Your task to perform on an android device: Go to network settings Image 0: 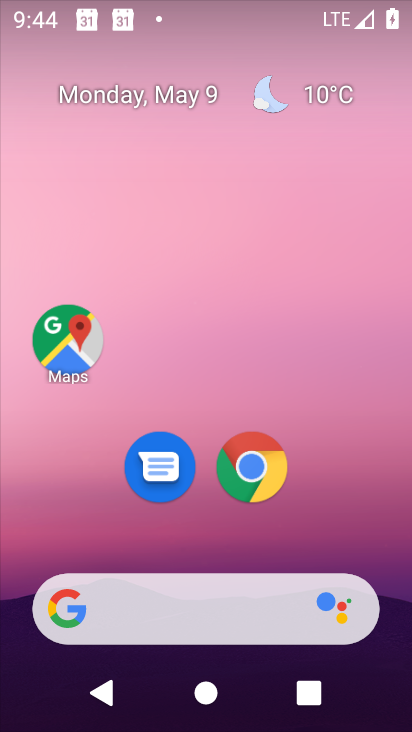
Step 0: drag from (370, 537) to (351, 3)
Your task to perform on an android device: Go to network settings Image 1: 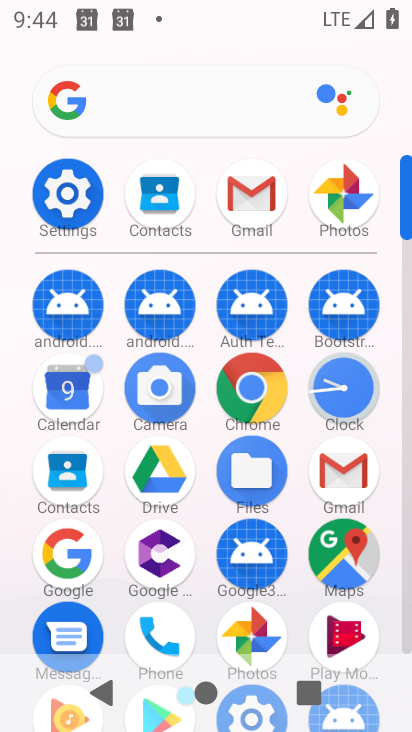
Step 1: click (61, 191)
Your task to perform on an android device: Go to network settings Image 2: 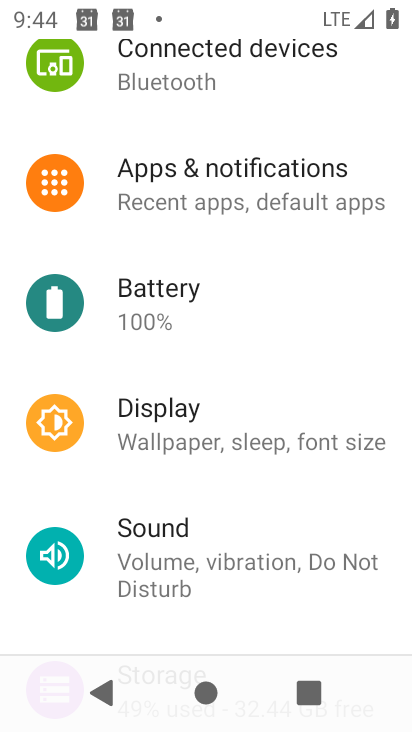
Step 2: drag from (309, 176) to (313, 494)
Your task to perform on an android device: Go to network settings Image 3: 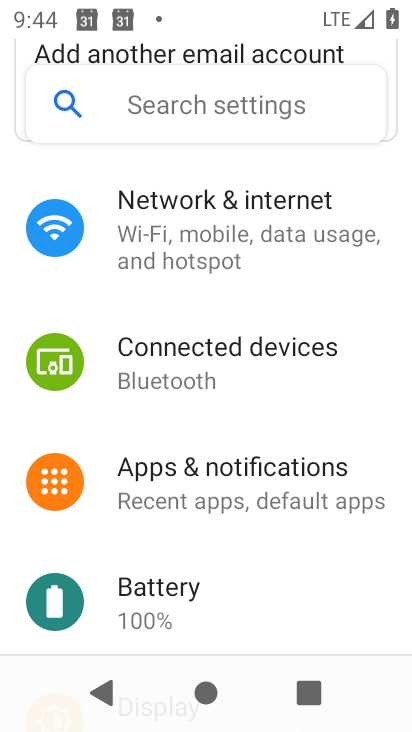
Step 3: click (204, 231)
Your task to perform on an android device: Go to network settings Image 4: 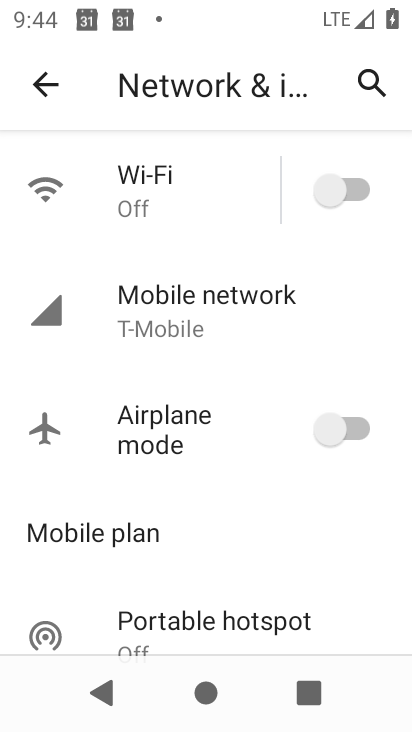
Step 4: drag from (278, 536) to (272, 354)
Your task to perform on an android device: Go to network settings Image 5: 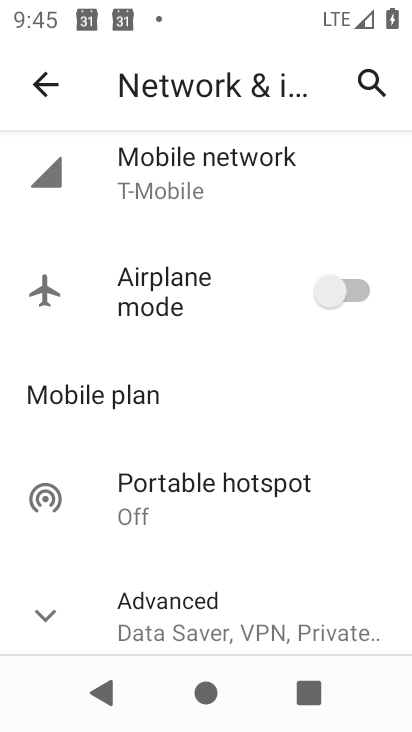
Step 5: click (132, 194)
Your task to perform on an android device: Go to network settings Image 6: 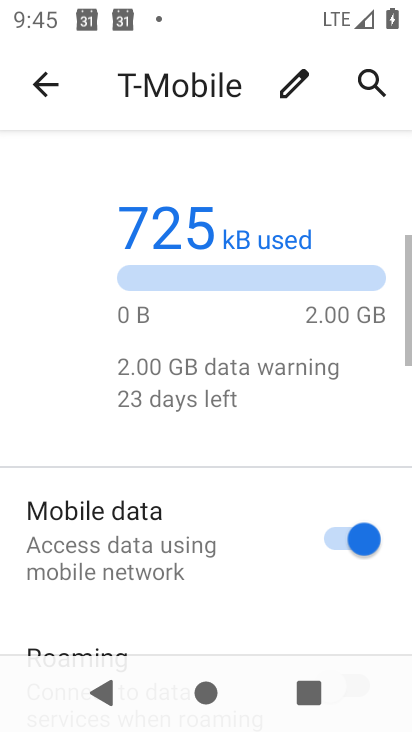
Step 6: drag from (208, 521) to (179, 43)
Your task to perform on an android device: Go to network settings Image 7: 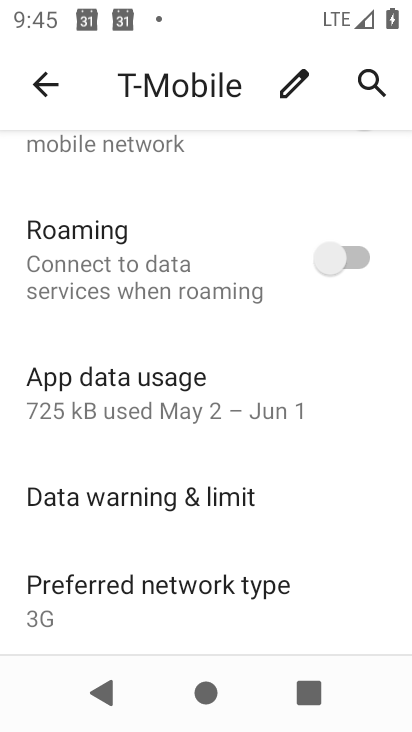
Step 7: drag from (149, 558) to (153, 247)
Your task to perform on an android device: Go to network settings Image 8: 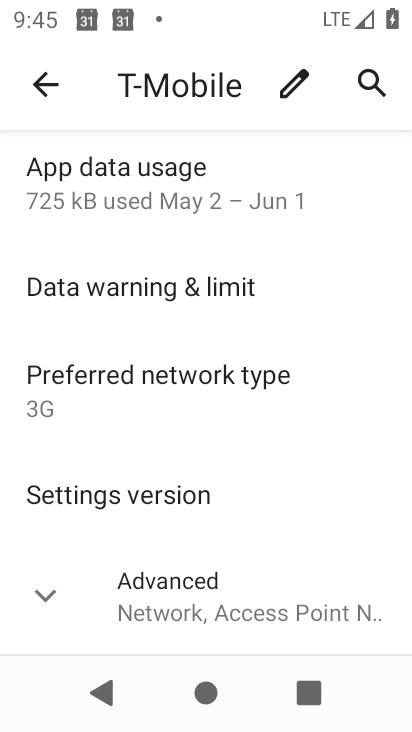
Step 8: click (37, 601)
Your task to perform on an android device: Go to network settings Image 9: 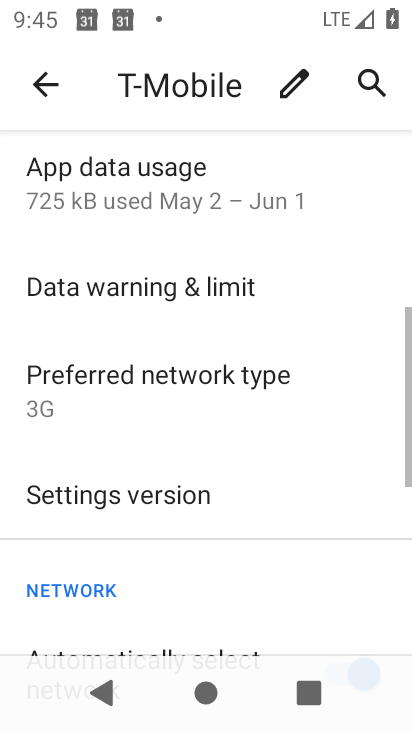
Step 9: task complete